Your task to perform on an android device: Open calendar and show me the third week of next month Image 0: 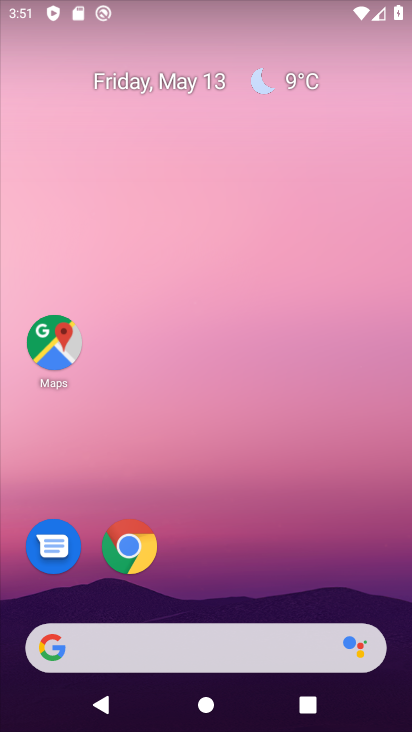
Step 0: drag from (207, 605) to (176, 26)
Your task to perform on an android device: Open calendar and show me the third week of next month Image 1: 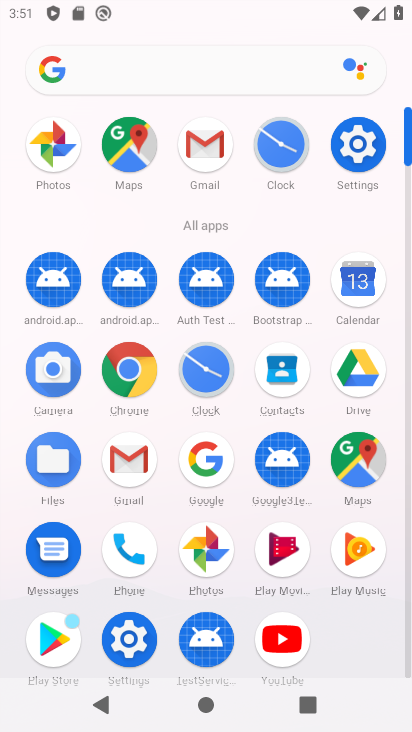
Step 1: click (351, 281)
Your task to perform on an android device: Open calendar and show me the third week of next month Image 2: 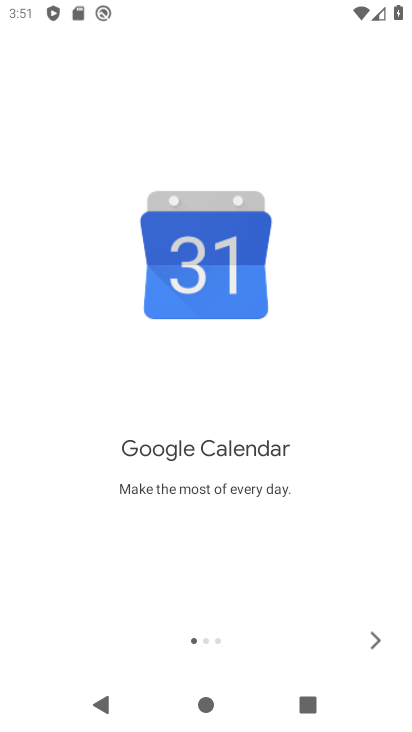
Step 2: click (367, 635)
Your task to perform on an android device: Open calendar and show me the third week of next month Image 3: 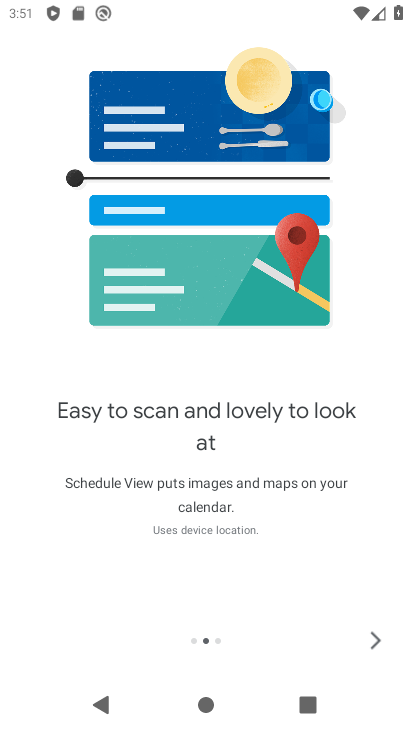
Step 3: click (368, 630)
Your task to perform on an android device: Open calendar and show me the third week of next month Image 4: 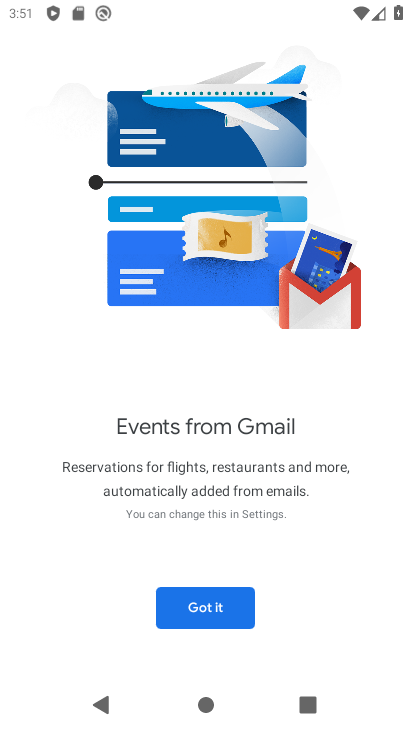
Step 4: click (211, 590)
Your task to perform on an android device: Open calendar and show me the third week of next month Image 5: 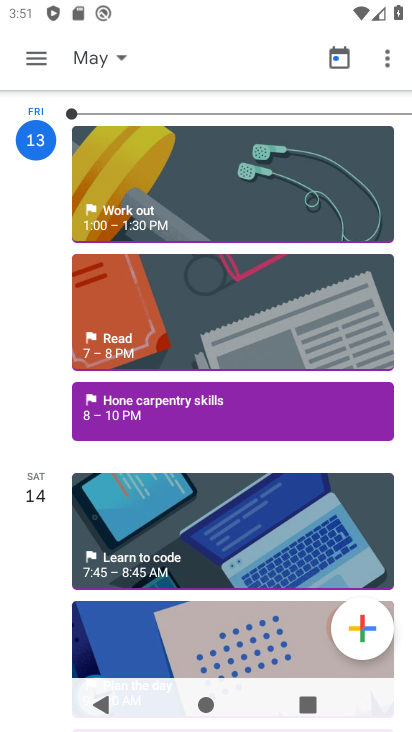
Step 5: click (33, 49)
Your task to perform on an android device: Open calendar and show me the third week of next month Image 6: 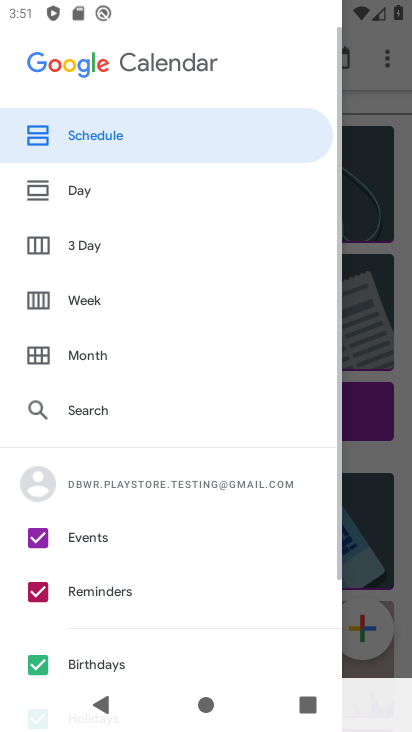
Step 6: click (110, 303)
Your task to perform on an android device: Open calendar and show me the third week of next month Image 7: 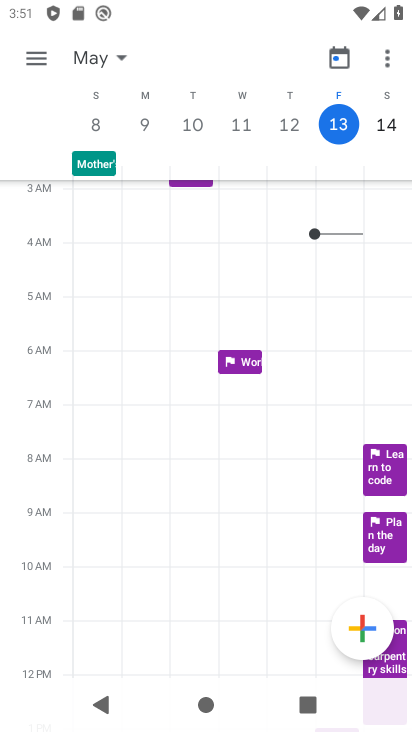
Step 7: task complete